Your task to perform on an android device: toggle improve location accuracy Image 0: 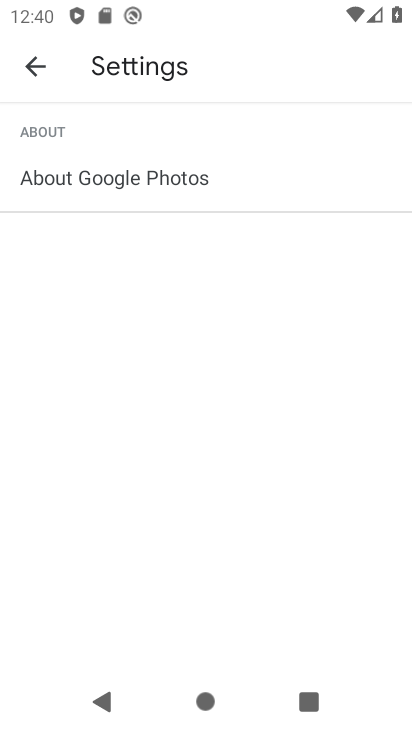
Step 0: press home button
Your task to perform on an android device: toggle improve location accuracy Image 1: 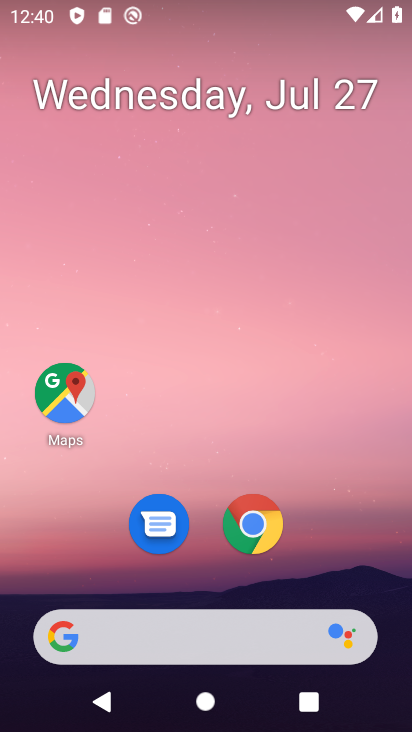
Step 1: drag from (322, 528) to (353, 88)
Your task to perform on an android device: toggle improve location accuracy Image 2: 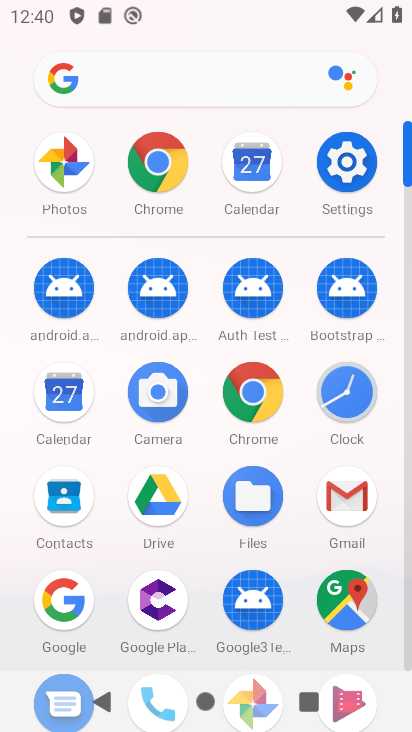
Step 2: click (348, 167)
Your task to perform on an android device: toggle improve location accuracy Image 3: 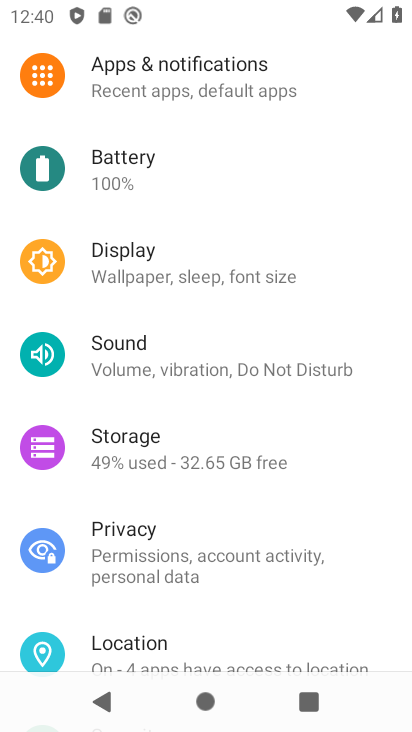
Step 3: drag from (228, 600) to (257, 190)
Your task to perform on an android device: toggle improve location accuracy Image 4: 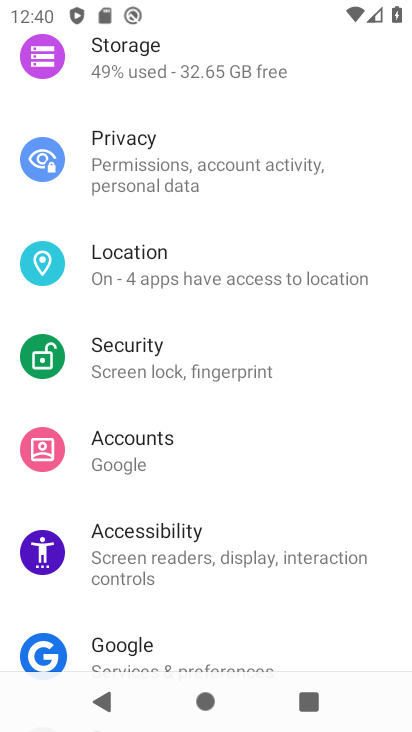
Step 4: click (247, 261)
Your task to perform on an android device: toggle improve location accuracy Image 5: 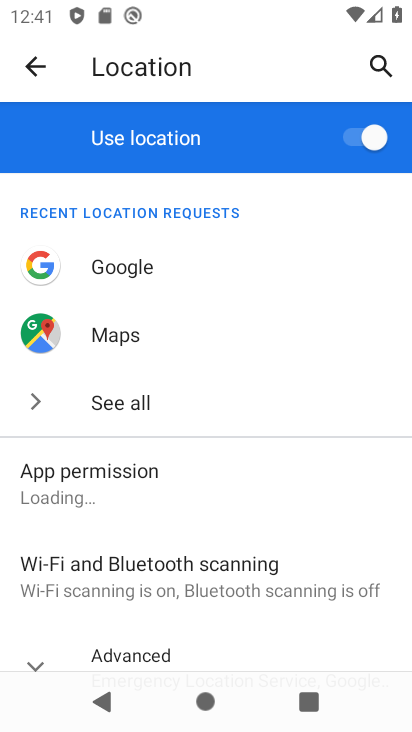
Step 5: drag from (175, 500) to (188, 317)
Your task to perform on an android device: toggle improve location accuracy Image 6: 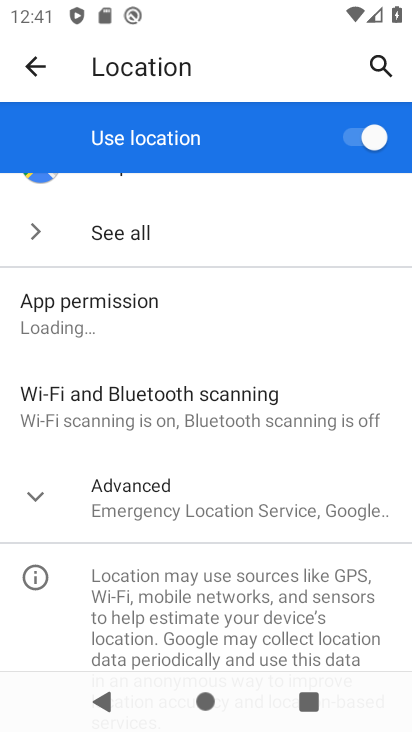
Step 6: click (30, 499)
Your task to perform on an android device: toggle improve location accuracy Image 7: 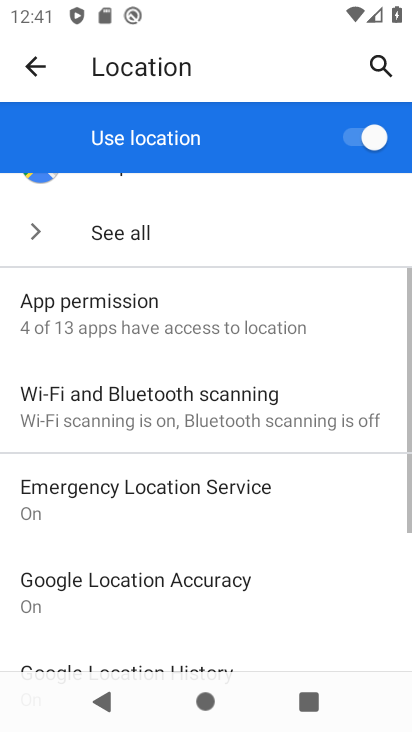
Step 7: drag from (302, 352) to (334, 184)
Your task to perform on an android device: toggle improve location accuracy Image 8: 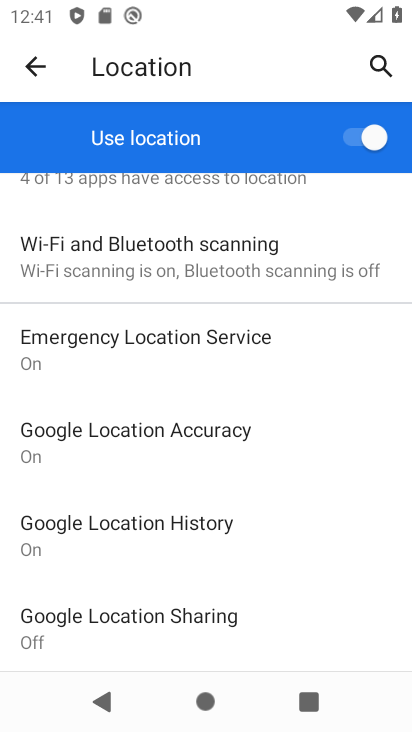
Step 8: click (175, 432)
Your task to perform on an android device: toggle improve location accuracy Image 9: 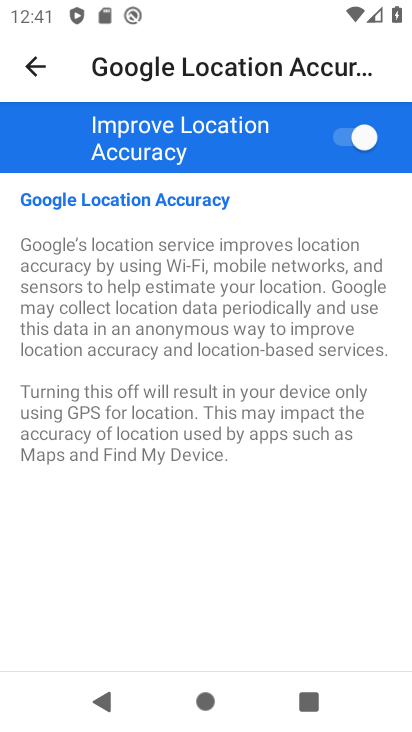
Step 9: click (361, 125)
Your task to perform on an android device: toggle improve location accuracy Image 10: 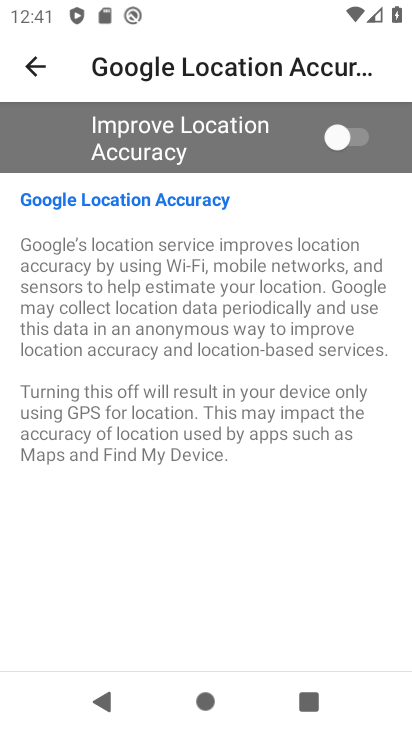
Step 10: task complete